Your task to perform on an android device: change the clock display to digital Image 0: 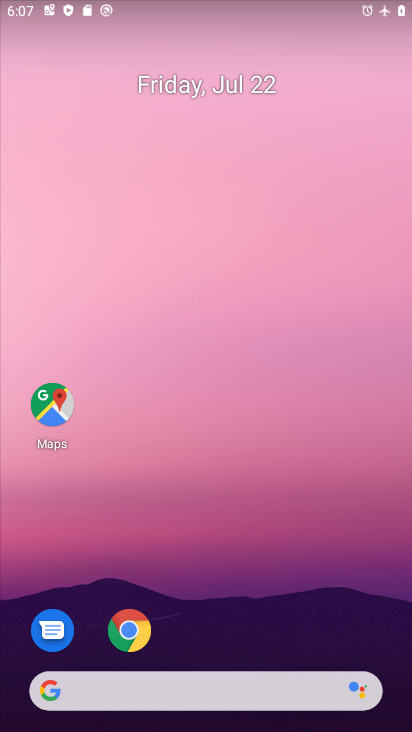
Step 0: drag from (241, 596) to (259, 75)
Your task to perform on an android device: change the clock display to digital Image 1: 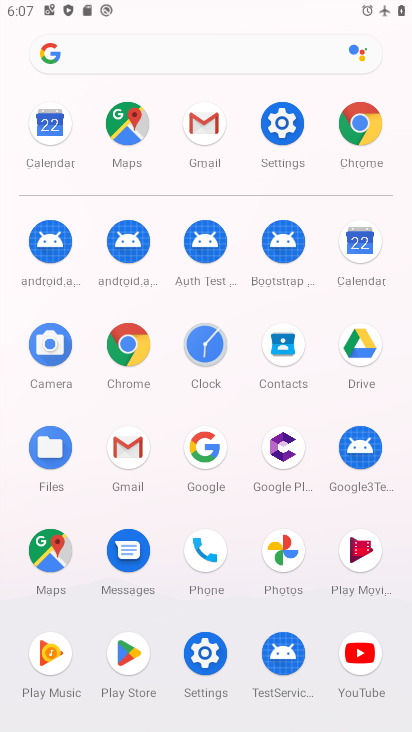
Step 1: click (212, 340)
Your task to perform on an android device: change the clock display to digital Image 2: 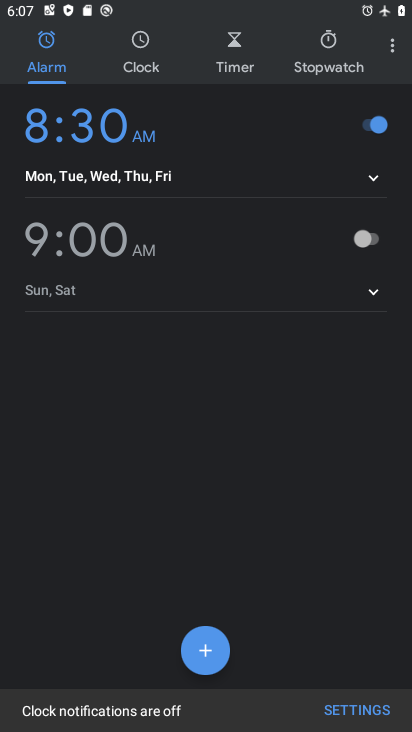
Step 2: drag from (391, 56) to (312, 77)
Your task to perform on an android device: change the clock display to digital Image 3: 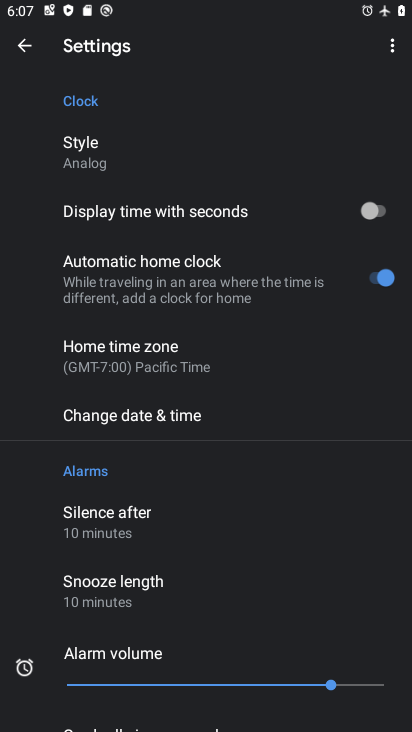
Step 3: click (97, 159)
Your task to perform on an android device: change the clock display to digital Image 4: 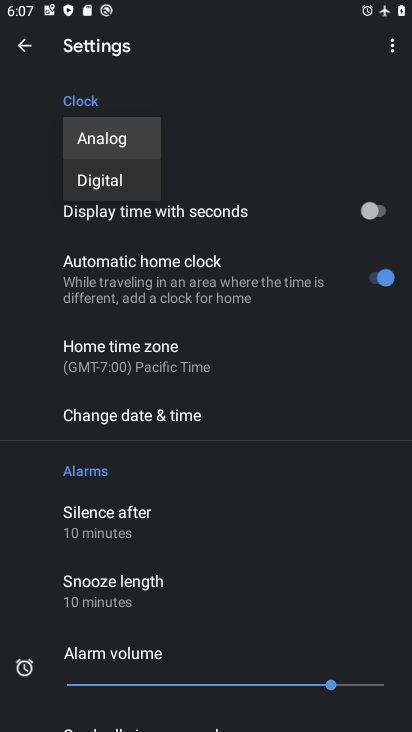
Step 4: click (107, 175)
Your task to perform on an android device: change the clock display to digital Image 5: 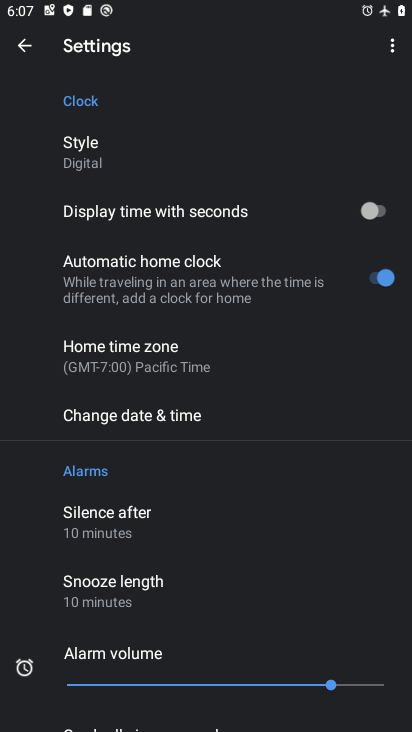
Step 5: task complete